Your task to perform on an android device: choose inbox layout in the gmail app Image 0: 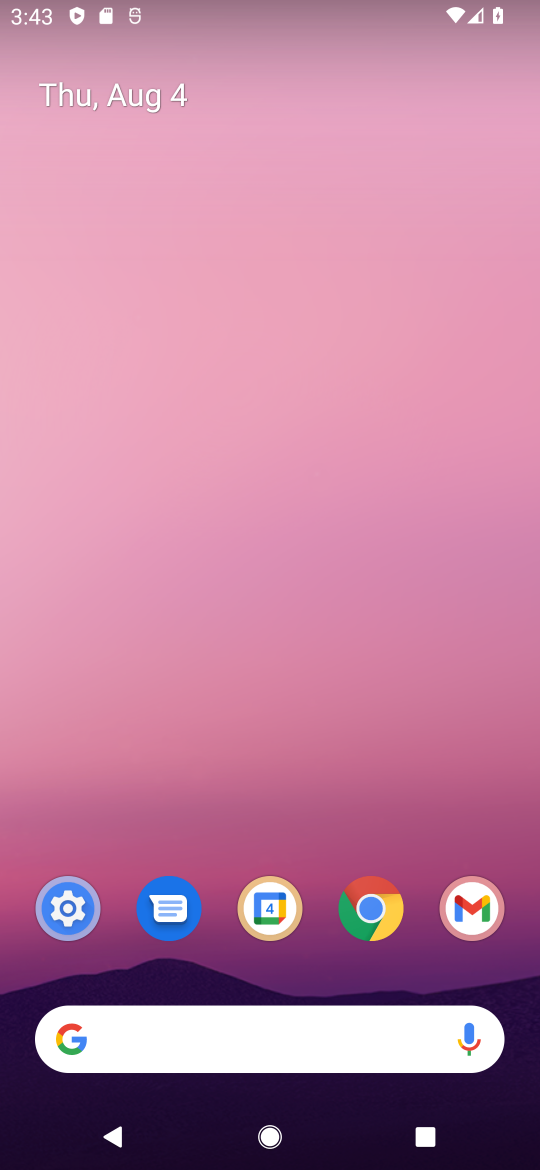
Step 0: click (484, 905)
Your task to perform on an android device: choose inbox layout in the gmail app Image 1: 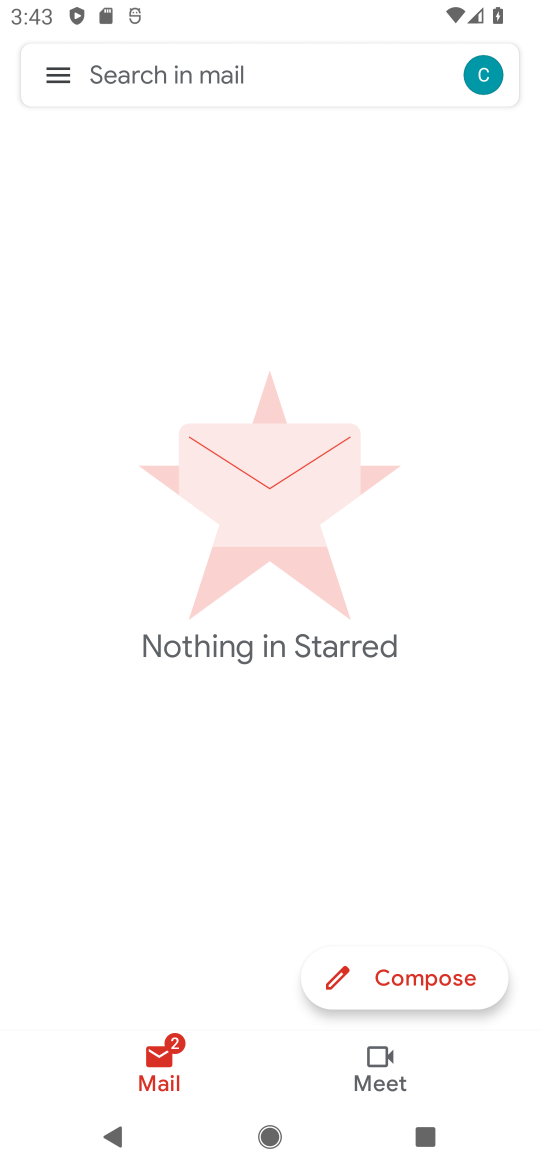
Step 1: click (51, 75)
Your task to perform on an android device: choose inbox layout in the gmail app Image 2: 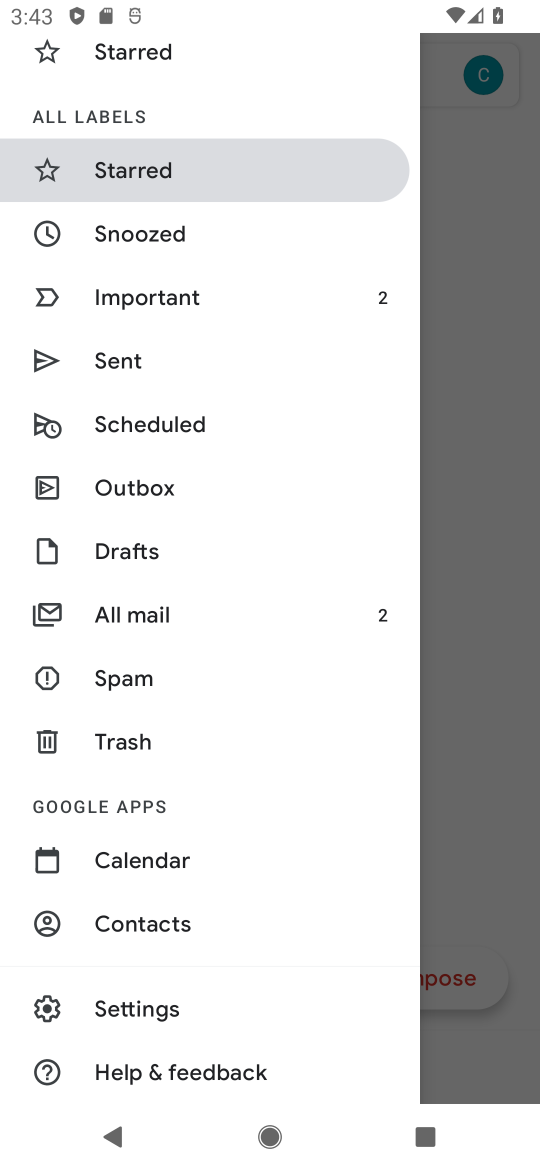
Step 2: click (140, 1011)
Your task to perform on an android device: choose inbox layout in the gmail app Image 3: 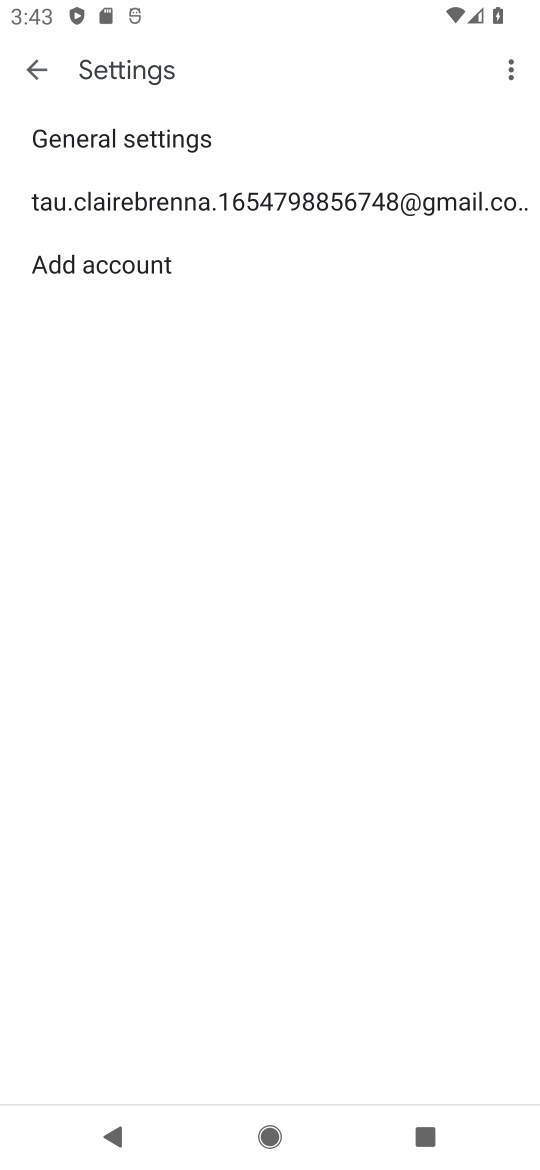
Step 3: click (477, 212)
Your task to perform on an android device: choose inbox layout in the gmail app Image 4: 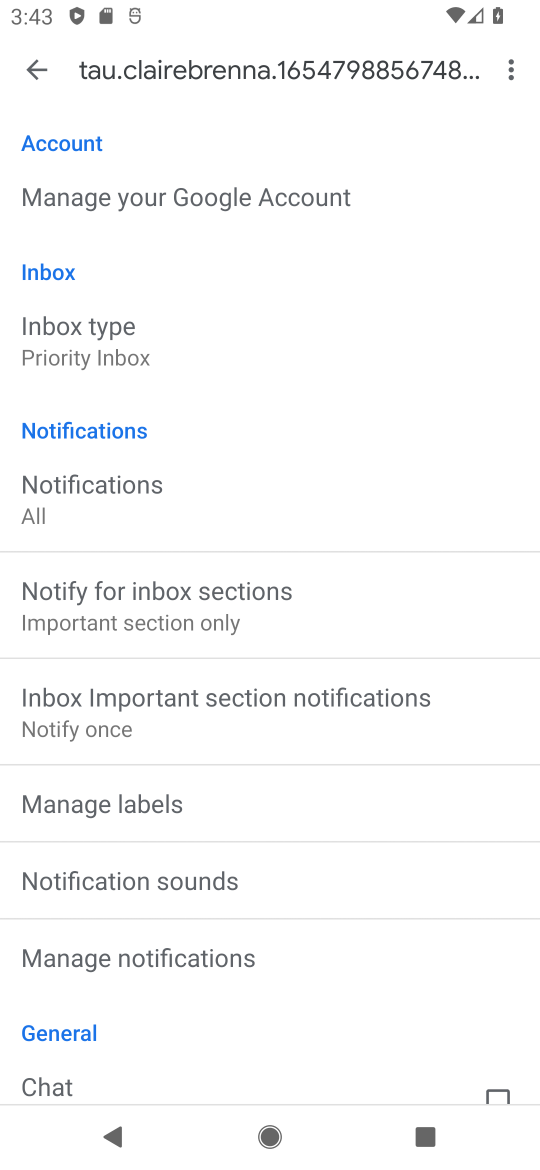
Step 4: click (187, 346)
Your task to perform on an android device: choose inbox layout in the gmail app Image 5: 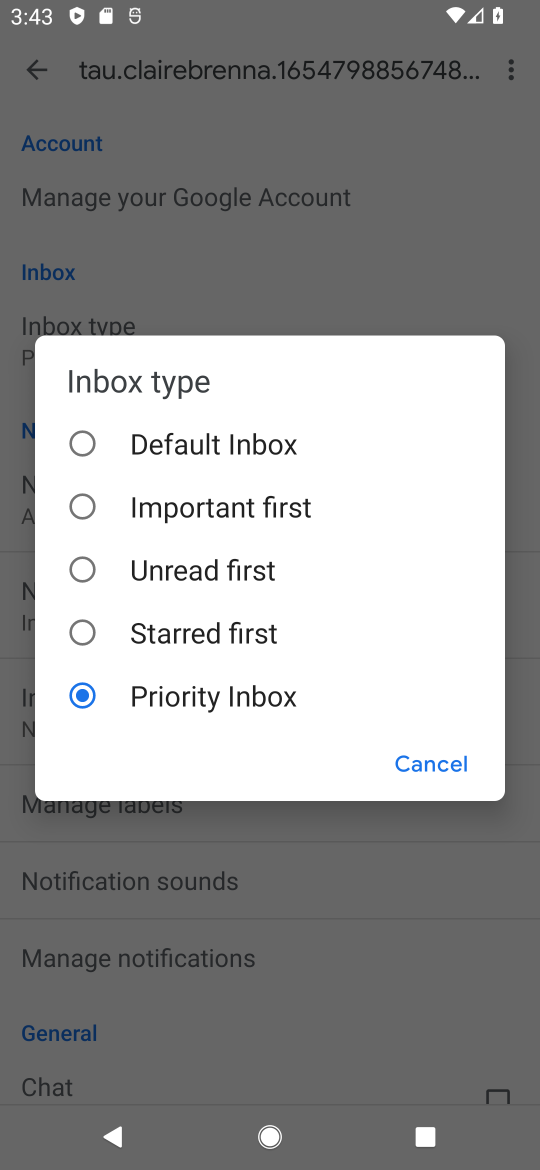
Step 5: click (204, 440)
Your task to perform on an android device: choose inbox layout in the gmail app Image 6: 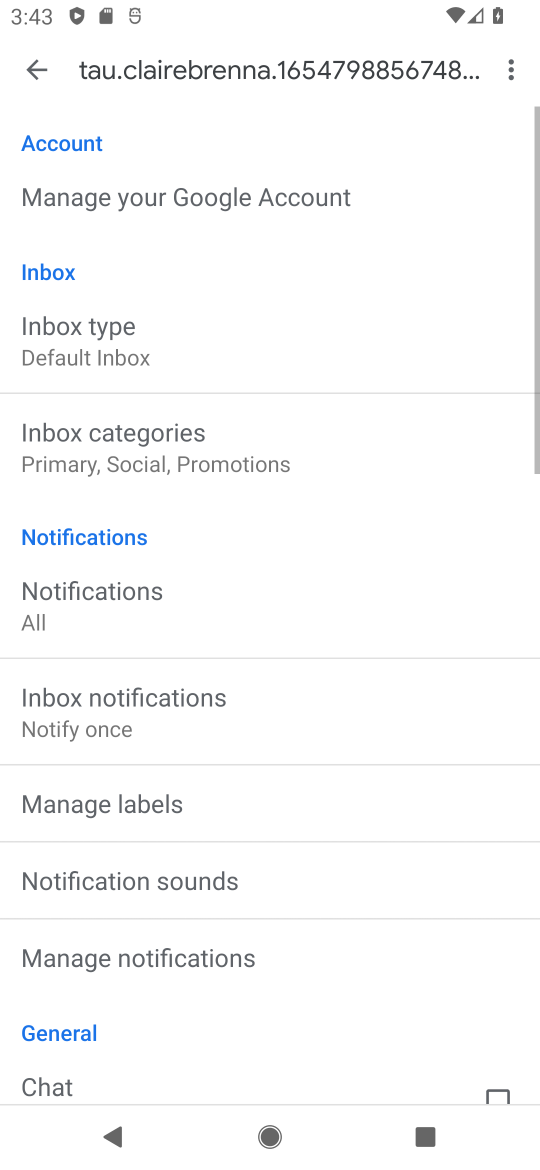
Step 6: task complete